Your task to perform on an android device: manage bookmarks in the chrome app Image 0: 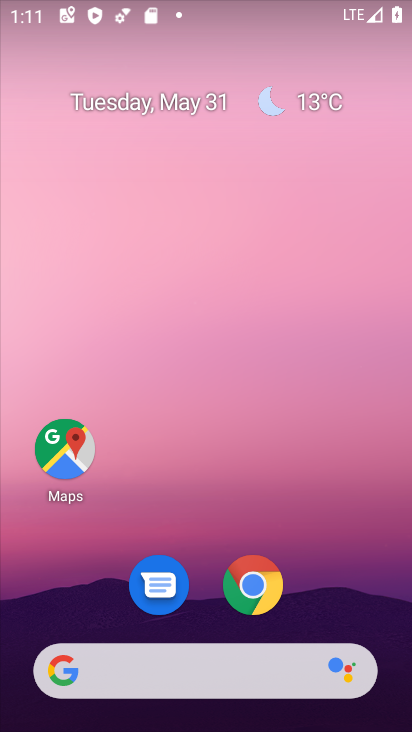
Step 0: click (254, 584)
Your task to perform on an android device: manage bookmarks in the chrome app Image 1: 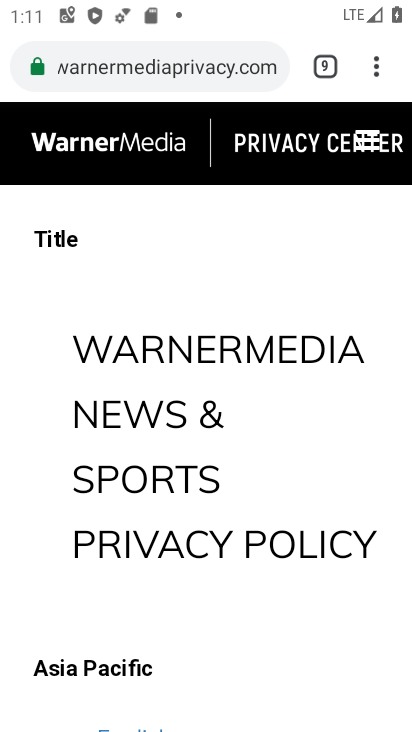
Step 1: click (372, 63)
Your task to perform on an android device: manage bookmarks in the chrome app Image 2: 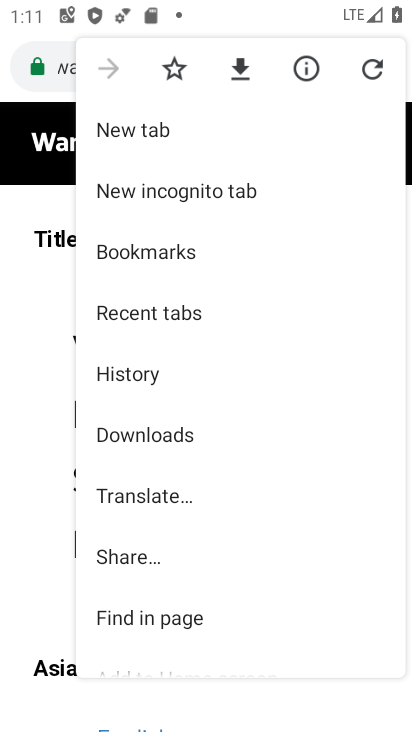
Step 2: click (181, 257)
Your task to perform on an android device: manage bookmarks in the chrome app Image 3: 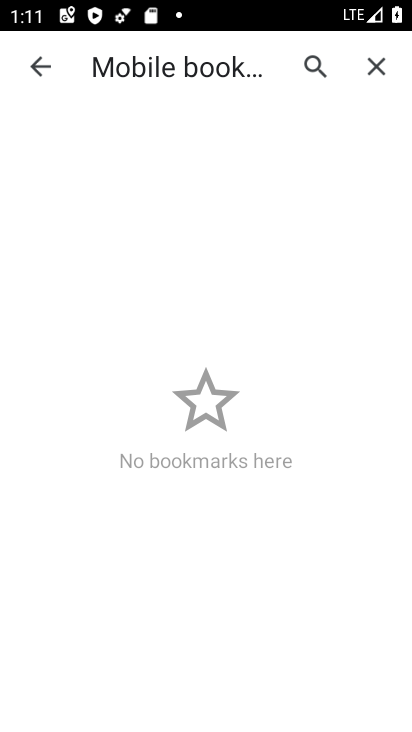
Step 3: task complete